Your task to perform on an android device: Check the settings for the Google Photos app Image 0: 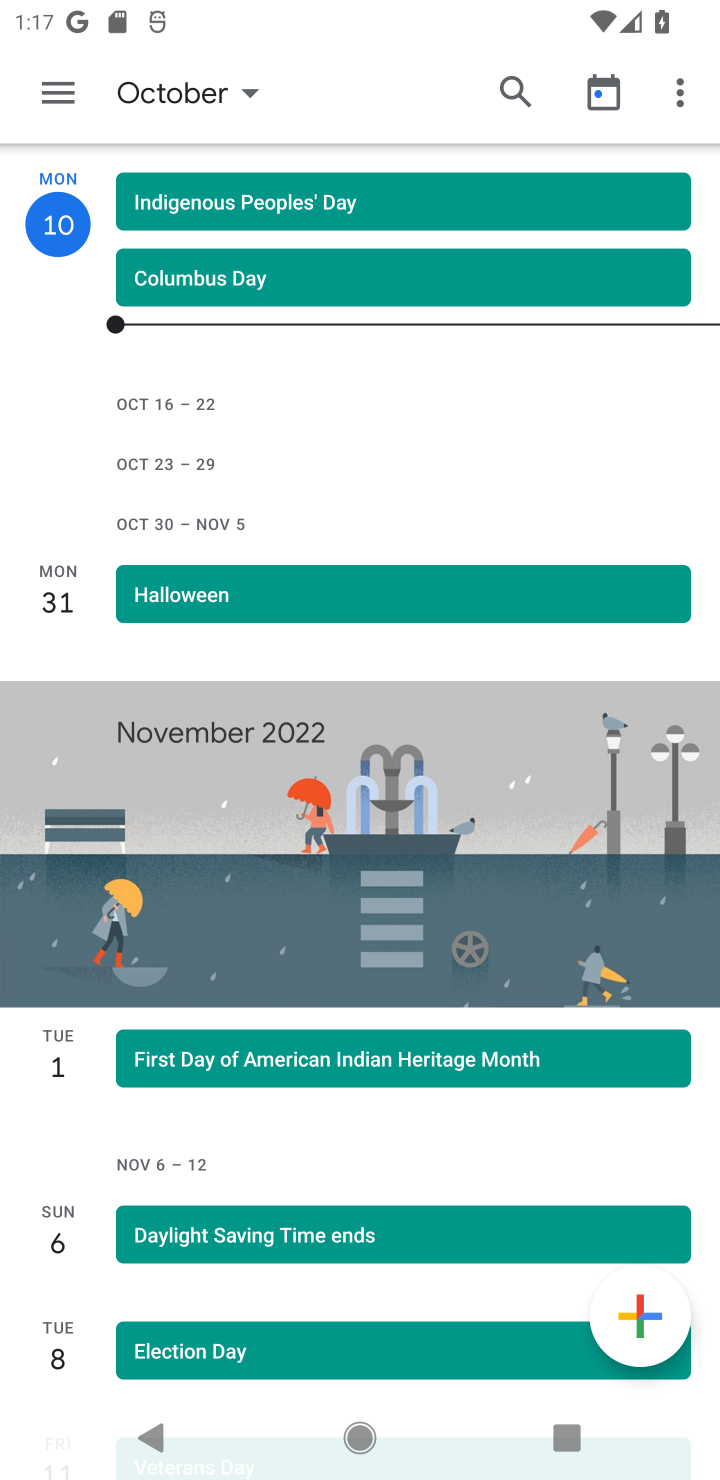
Step 0: press home button
Your task to perform on an android device: Check the settings for the Google Photos app Image 1: 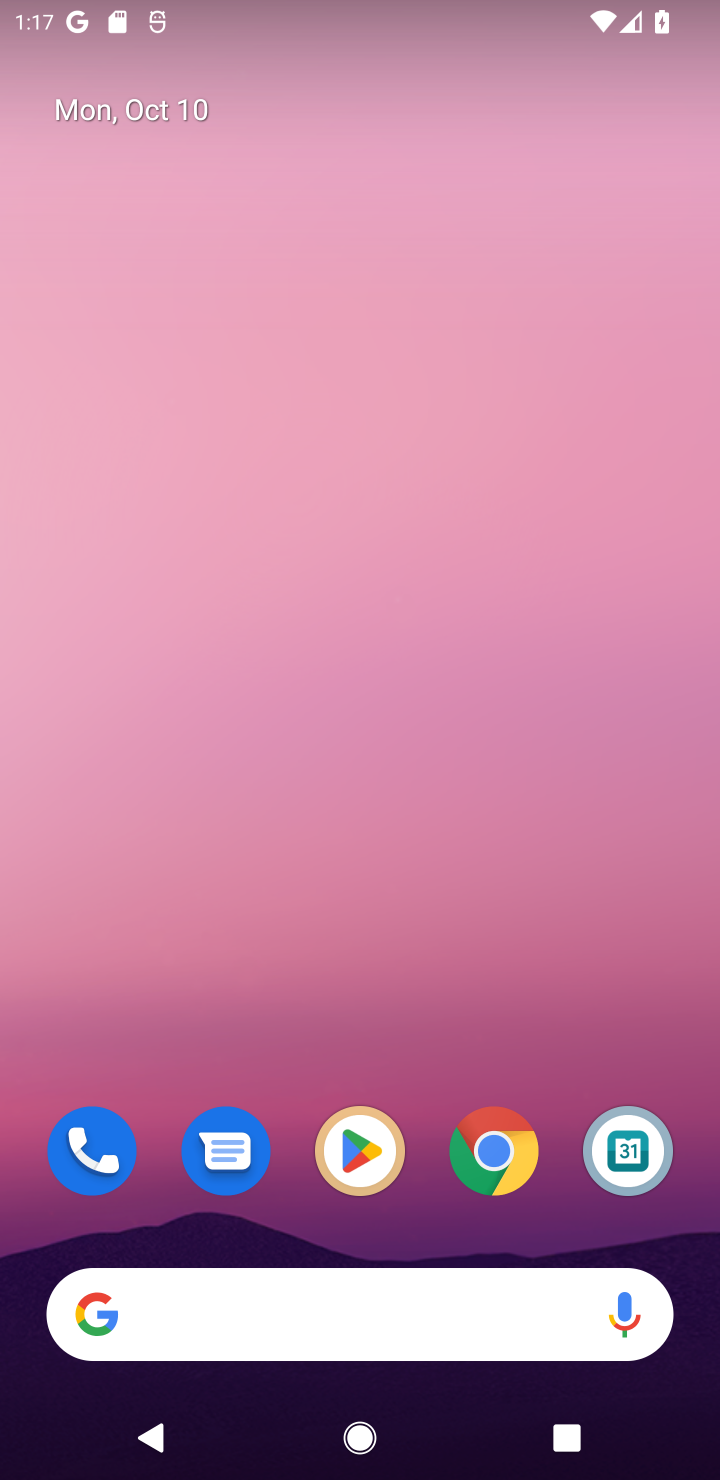
Step 1: drag from (444, 949) to (283, 258)
Your task to perform on an android device: Check the settings for the Google Photos app Image 2: 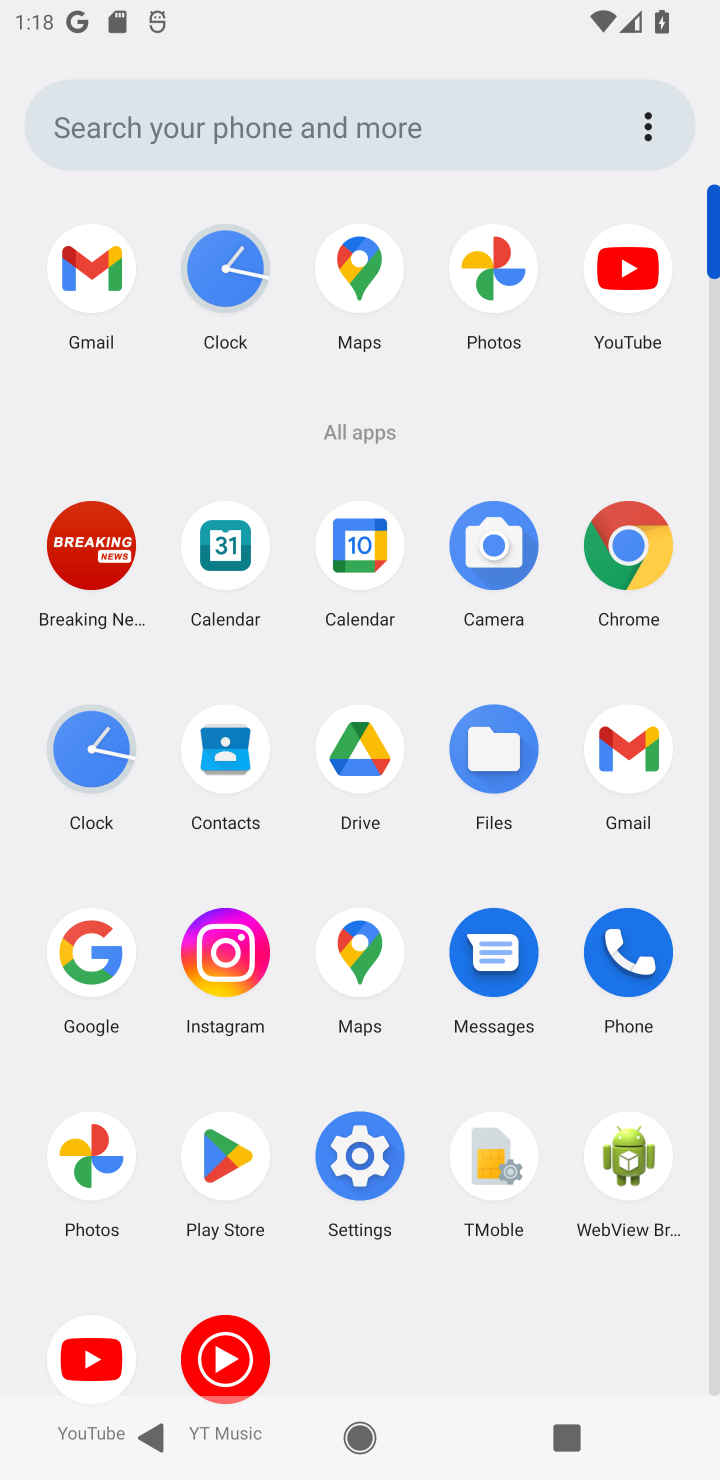
Step 2: click (494, 268)
Your task to perform on an android device: Check the settings for the Google Photos app Image 3: 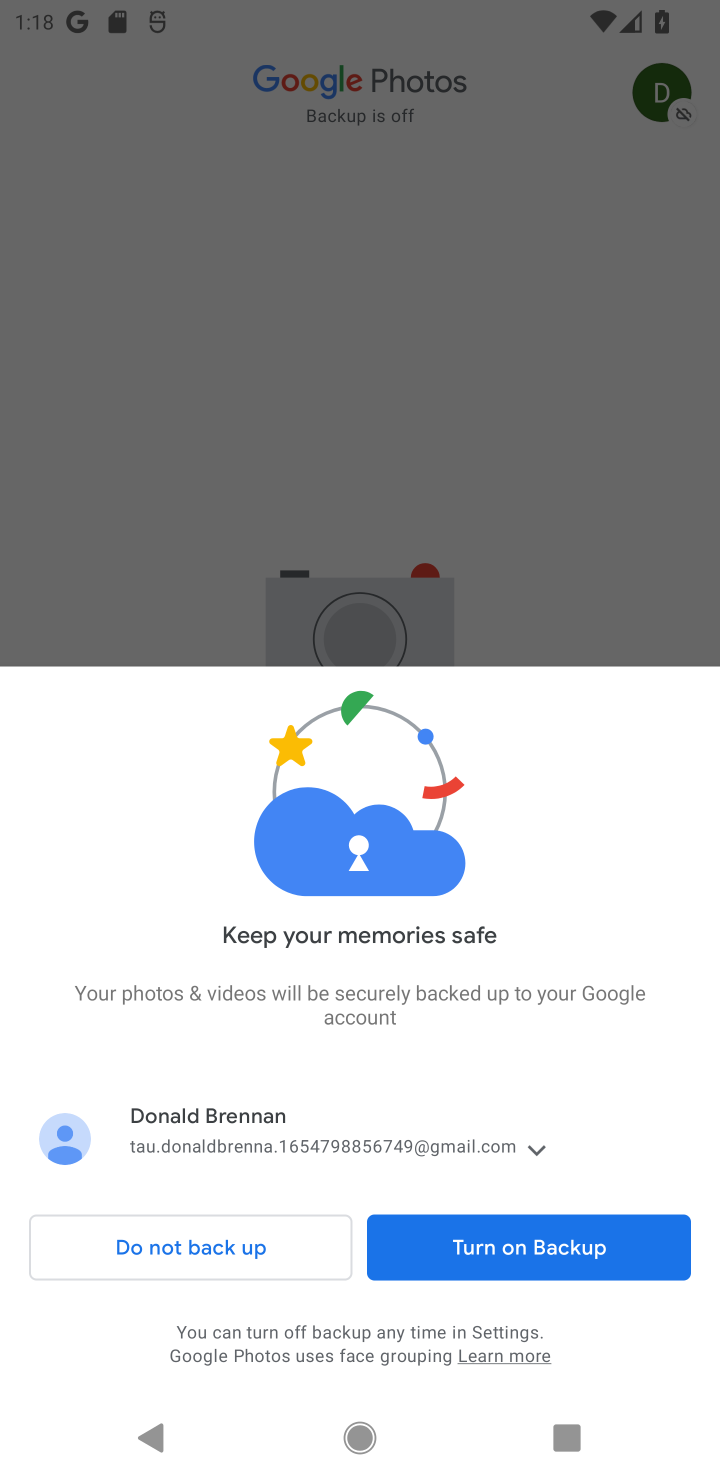
Step 3: click (262, 1238)
Your task to perform on an android device: Check the settings for the Google Photos app Image 4: 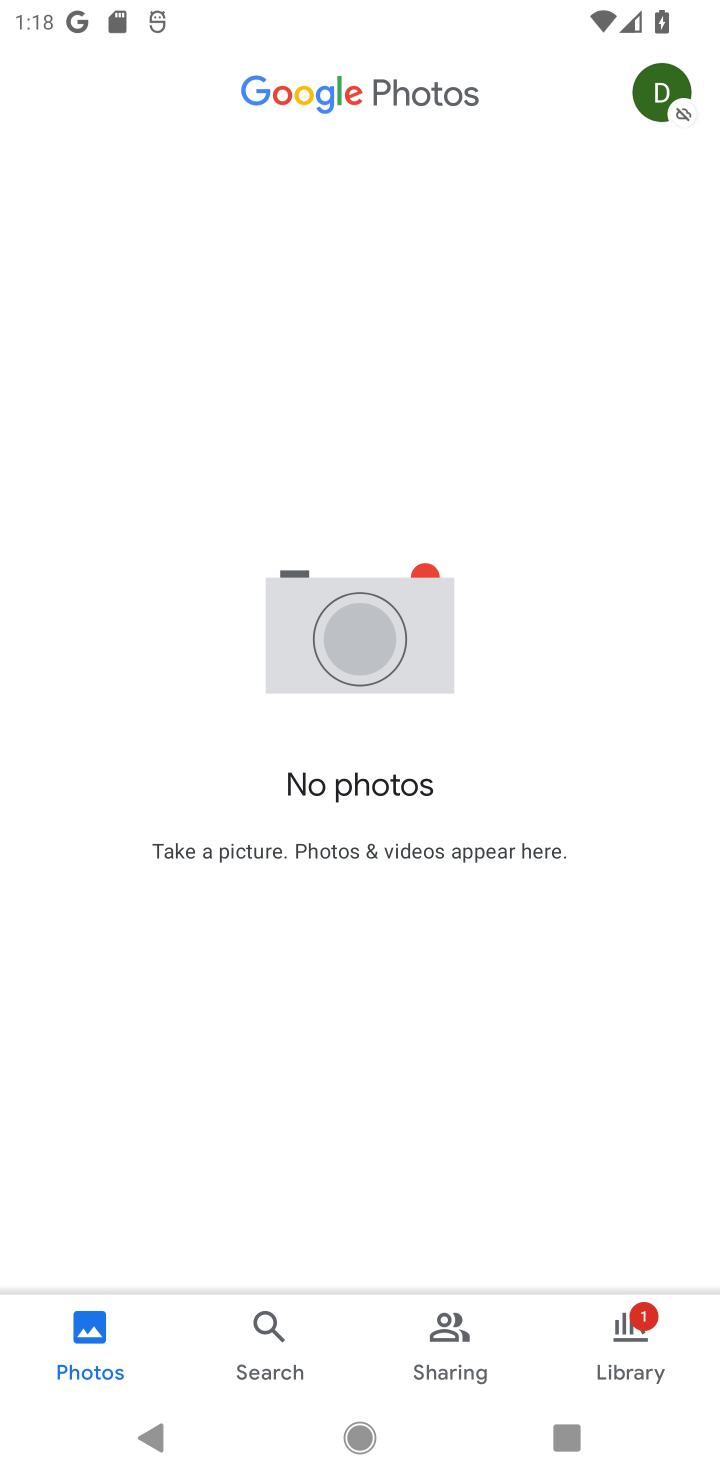
Step 4: click (669, 88)
Your task to perform on an android device: Check the settings for the Google Photos app Image 5: 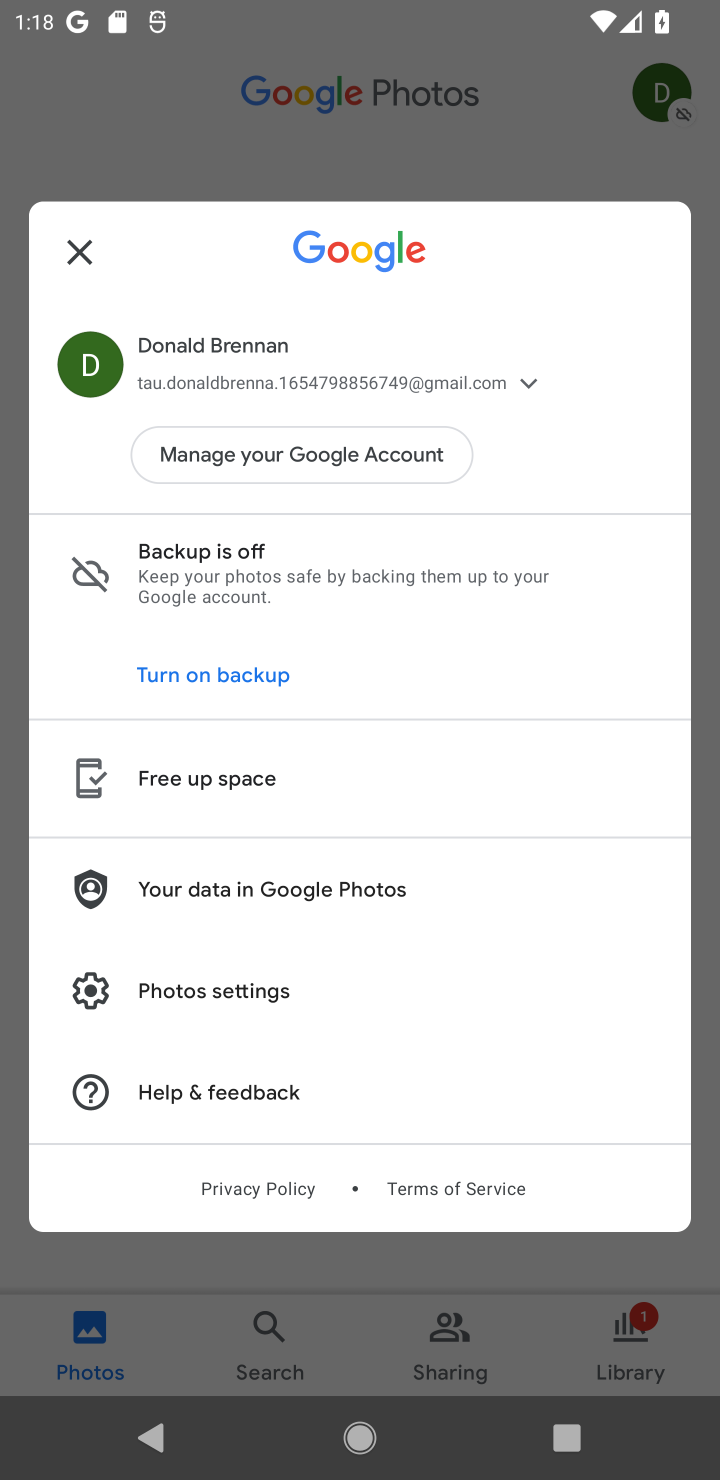
Step 5: click (214, 991)
Your task to perform on an android device: Check the settings for the Google Photos app Image 6: 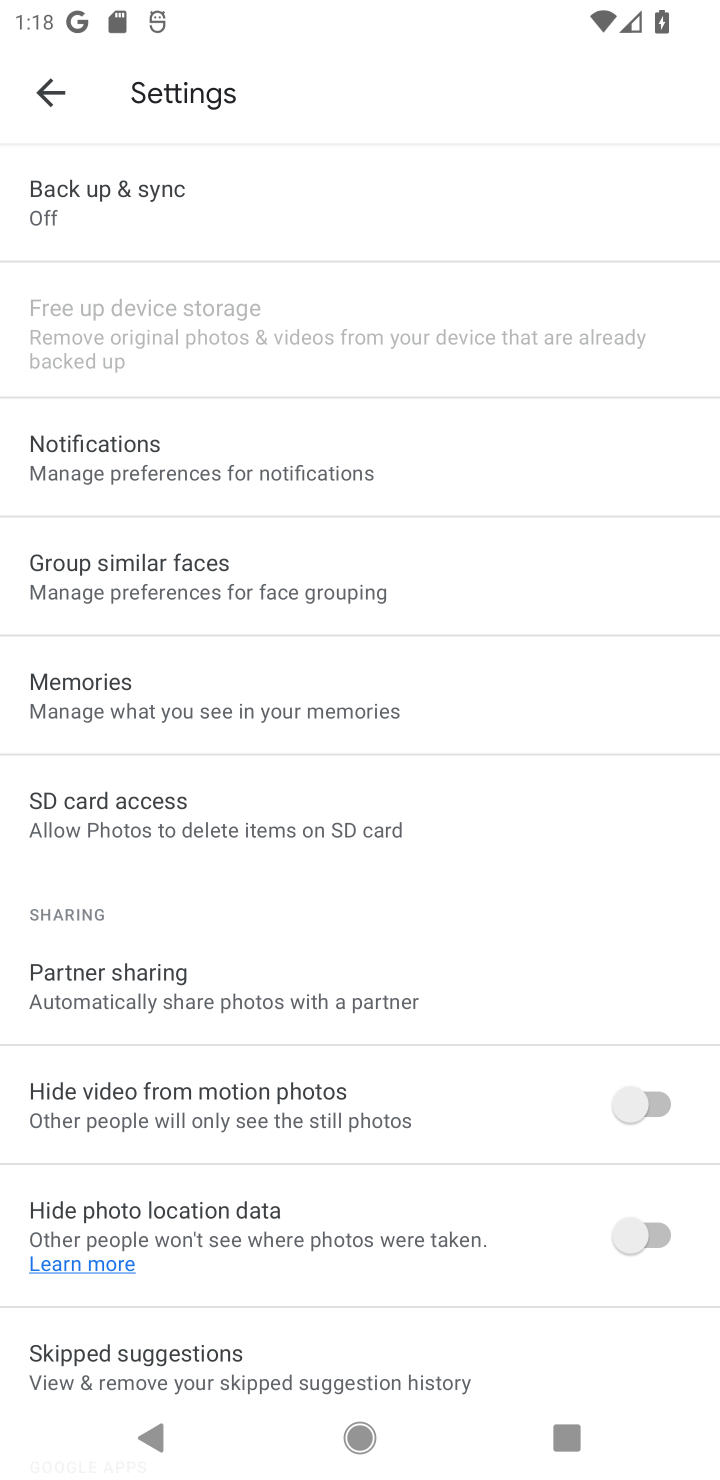
Step 6: task complete